Your task to perform on an android device: Search for Italian restaurants on Maps Image 0: 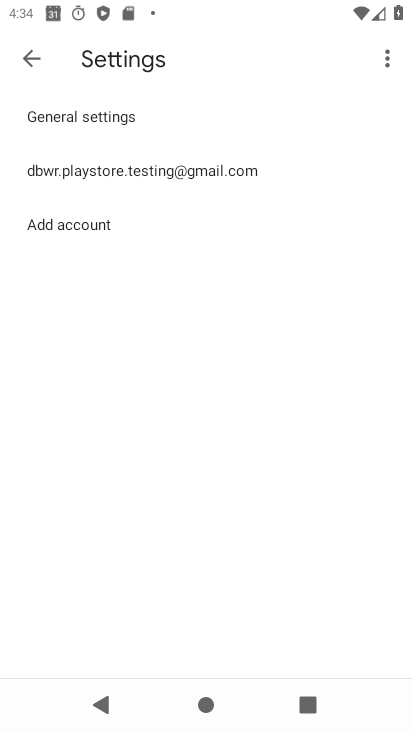
Step 0: press home button
Your task to perform on an android device: Search for Italian restaurants on Maps Image 1: 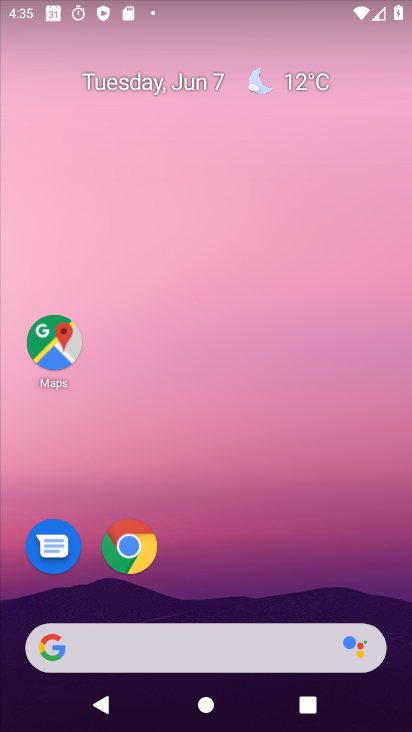
Step 1: click (82, 337)
Your task to perform on an android device: Search for Italian restaurants on Maps Image 2: 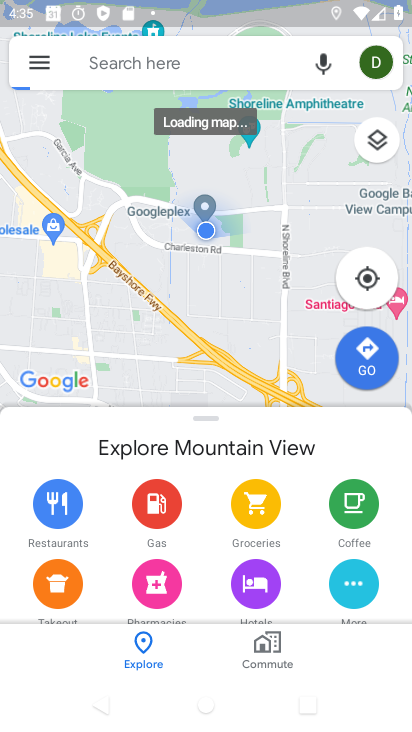
Step 2: click (125, 63)
Your task to perform on an android device: Search for Italian restaurants on Maps Image 3: 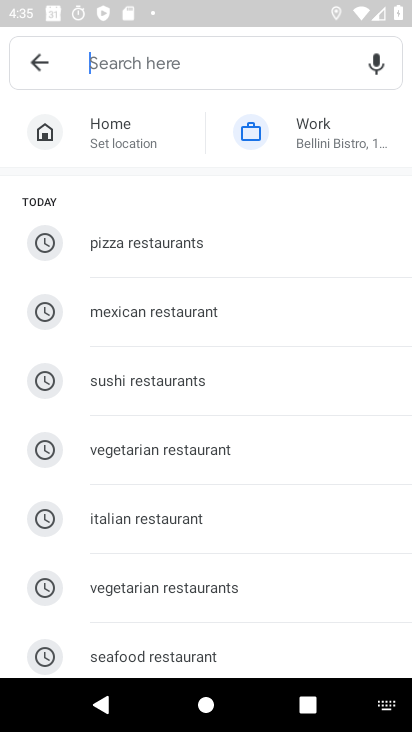
Step 3: click (177, 510)
Your task to perform on an android device: Search for Italian restaurants on Maps Image 4: 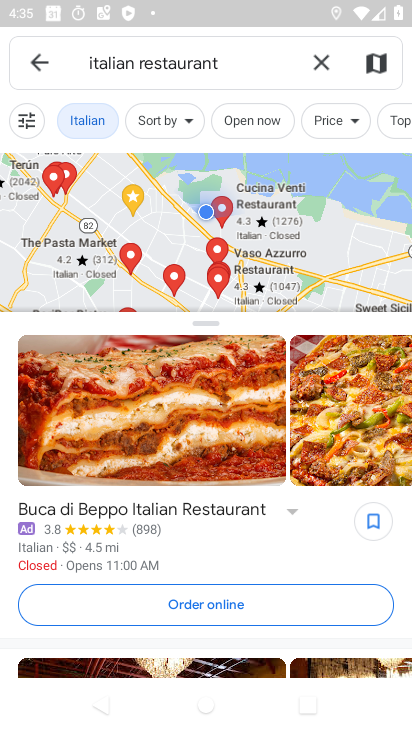
Step 4: task complete